Your task to perform on an android device: turn off picture-in-picture Image 0: 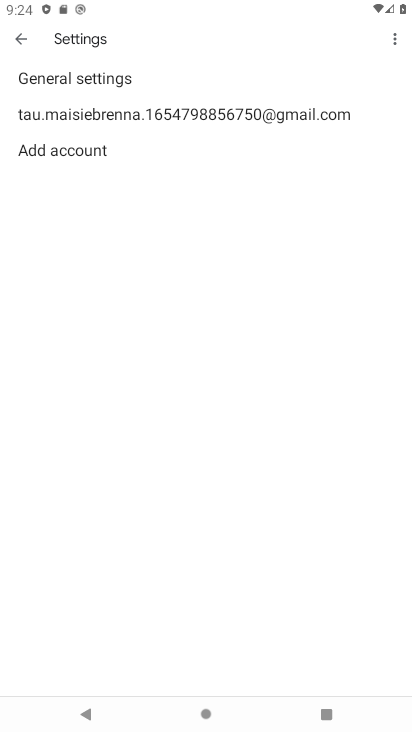
Step 0: click (26, 26)
Your task to perform on an android device: turn off picture-in-picture Image 1: 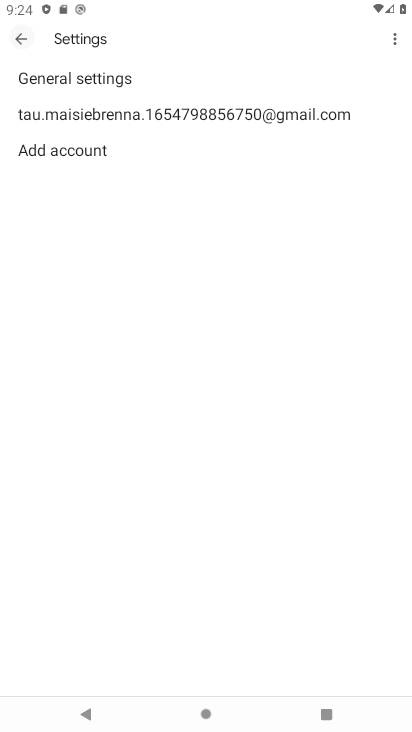
Step 1: click (26, 26)
Your task to perform on an android device: turn off picture-in-picture Image 2: 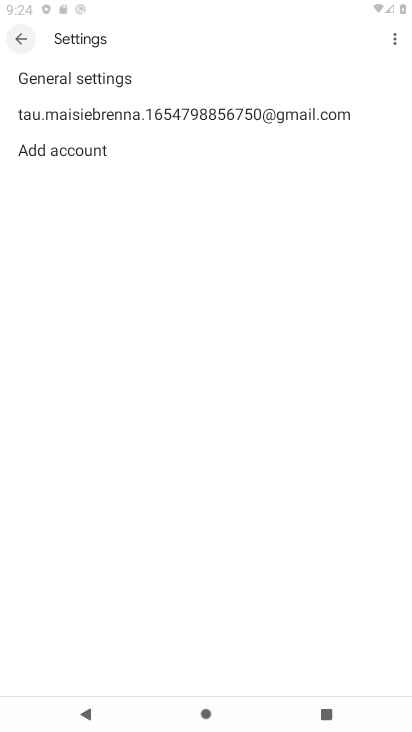
Step 2: click (26, 26)
Your task to perform on an android device: turn off picture-in-picture Image 3: 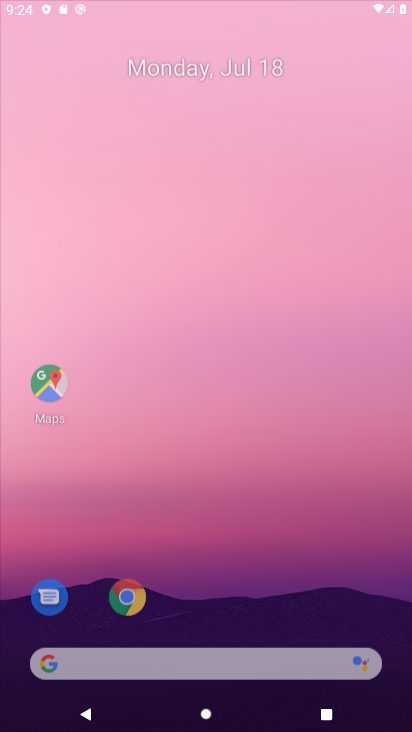
Step 3: click (26, 47)
Your task to perform on an android device: turn off picture-in-picture Image 4: 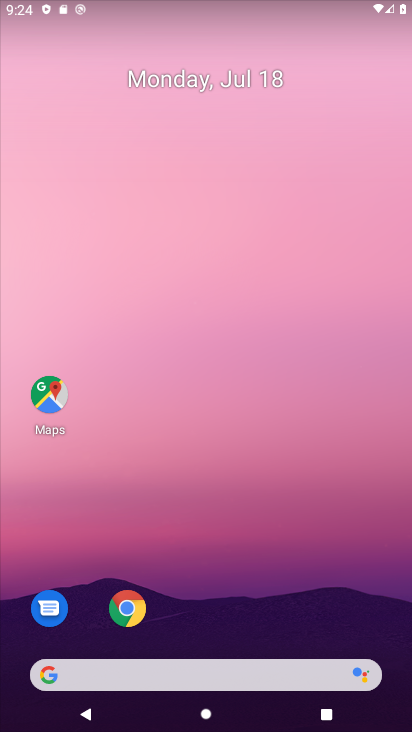
Step 4: drag from (214, 648) to (210, 125)
Your task to perform on an android device: turn off picture-in-picture Image 5: 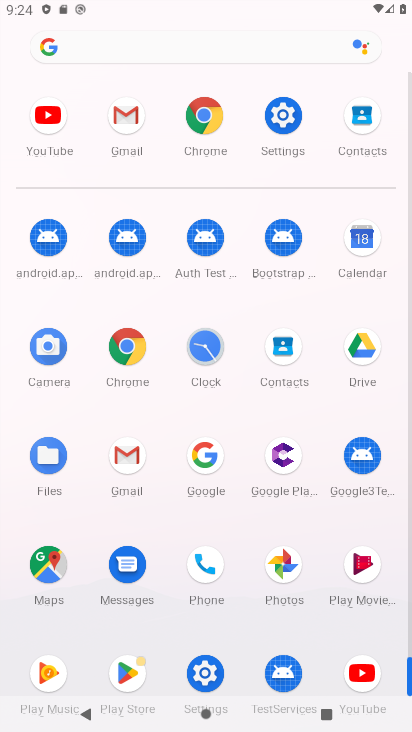
Step 5: click (198, 126)
Your task to perform on an android device: turn off picture-in-picture Image 6: 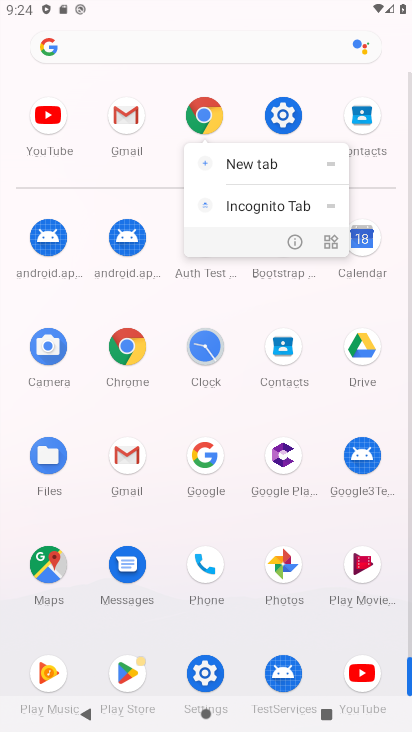
Step 6: click (296, 234)
Your task to perform on an android device: turn off picture-in-picture Image 7: 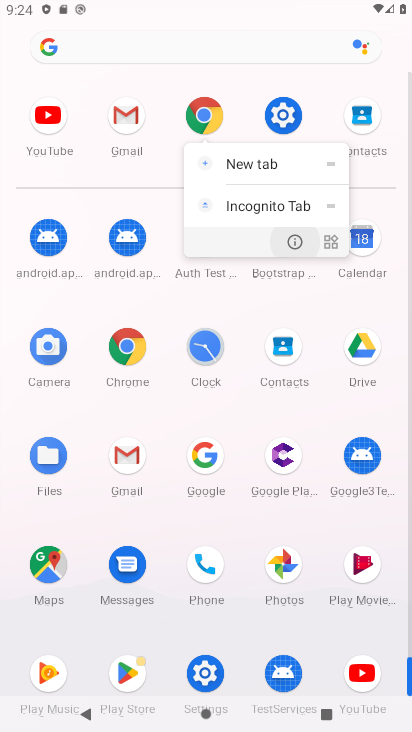
Step 7: click (296, 234)
Your task to perform on an android device: turn off picture-in-picture Image 8: 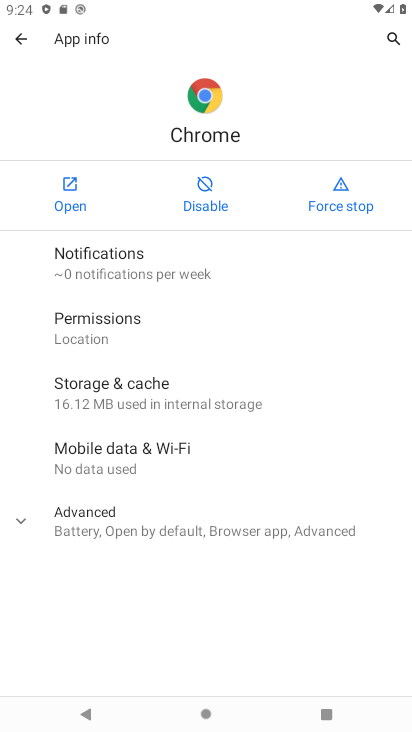
Step 8: click (93, 531)
Your task to perform on an android device: turn off picture-in-picture Image 9: 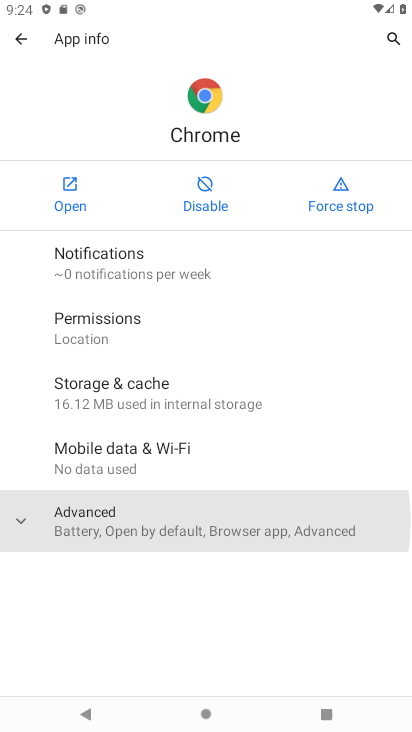
Step 9: click (74, 499)
Your task to perform on an android device: turn off picture-in-picture Image 10: 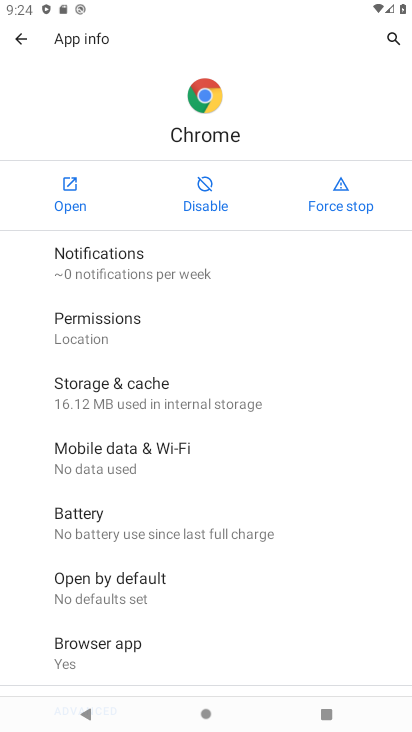
Step 10: drag from (122, 599) to (60, 186)
Your task to perform on an android device: turn off picture-in-picture Image 11: 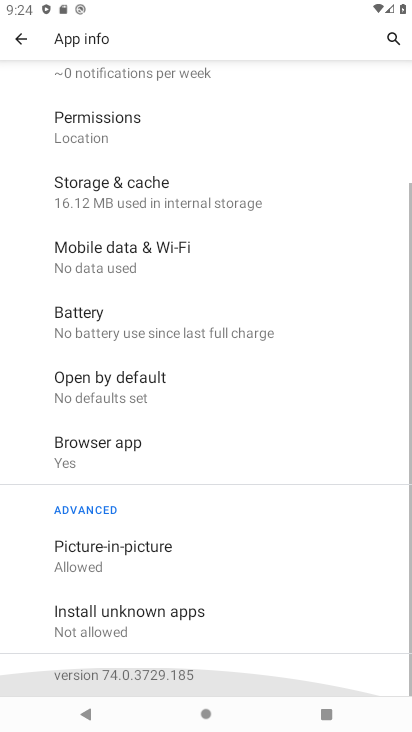
Step 11: drag from (191, 511) to (147, 340)
Your task to perform on an android device: turn off picture-in-picture Image 12: 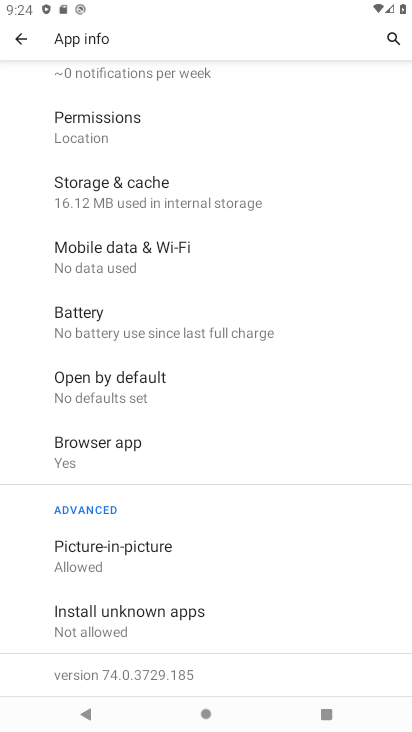
Step 12: click (91, 580)
Your task to perform on an android device: turn off picture-in-picture Image 13: 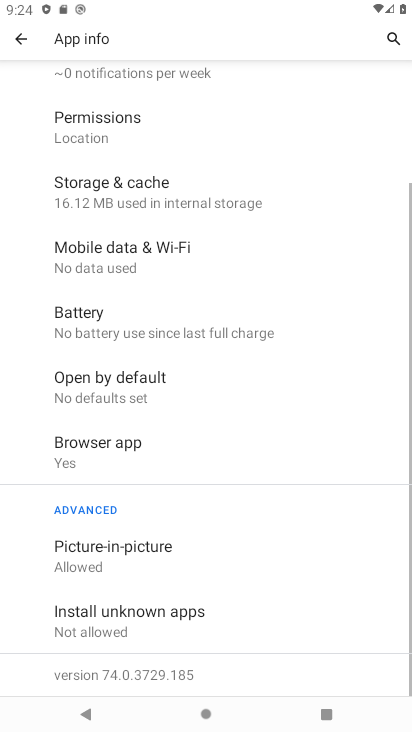
Step 13: click (92, 549)
Your task to perform on an android device: turn off picture-in-picture Image 14: 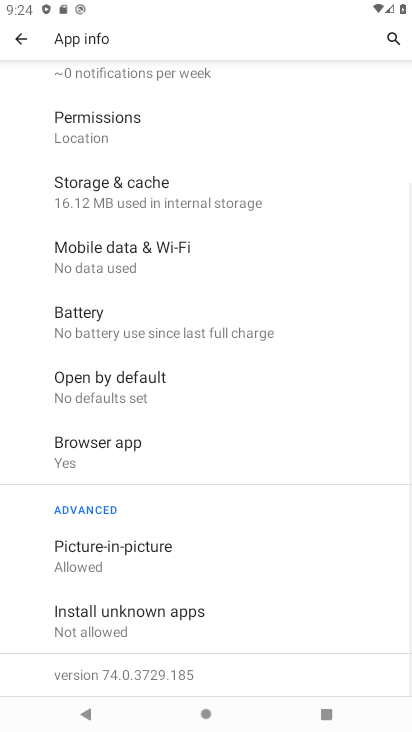
Step 14: click (92, 549)
Your task to perform on an android device: turn off picture-in-picture Image 15: 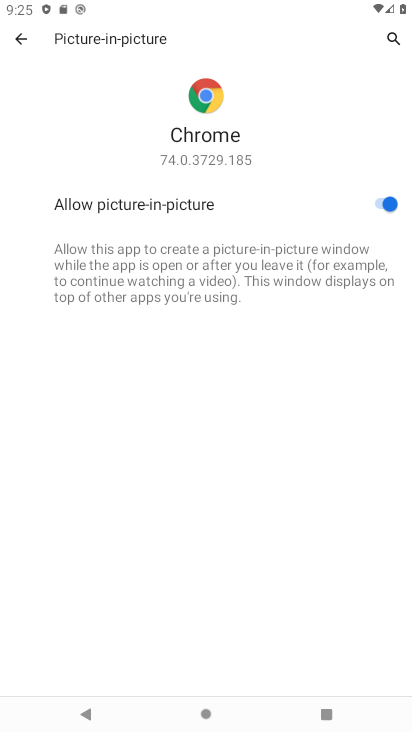
Step 15: click (386, 206)
Your task to perform on an android device: turn off picture-in-picture Image 16: 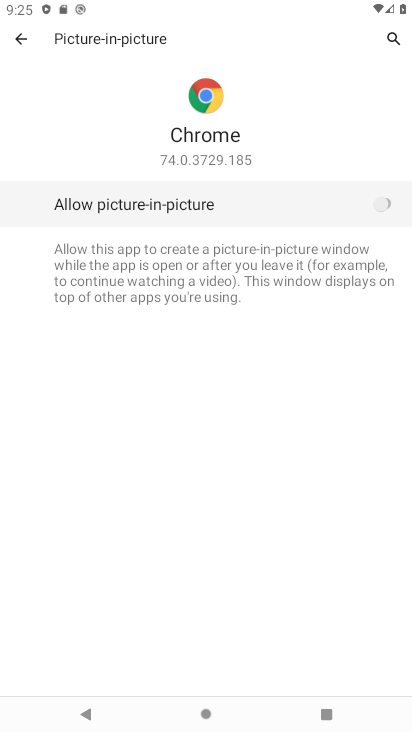
Step 16: click (397, 195)
Your task to perform on an android device: turn off picture-in-picture Image 17: 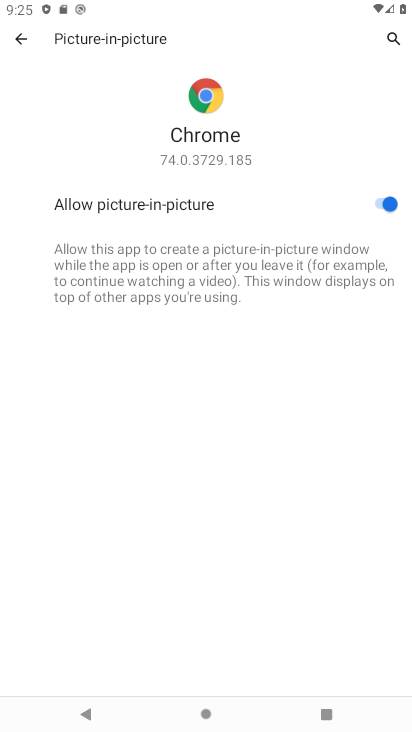
Step 17: click (401, 201)
Your task to perform on an android device: turn off picture-in-picture Image 18: 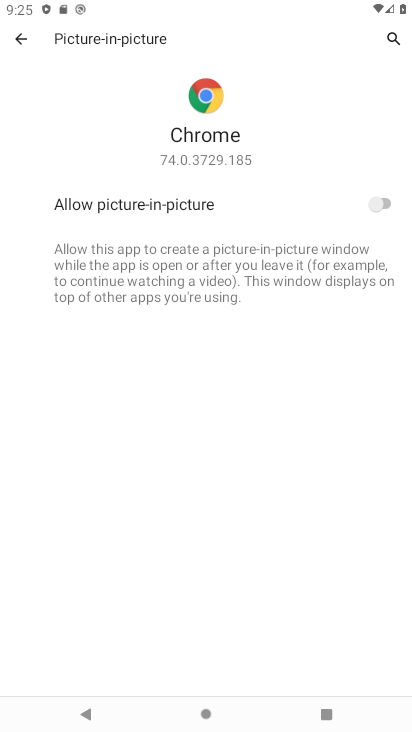
Step 18: task complete